Your task to perform on an android device: Do I have any events today? Image 0: 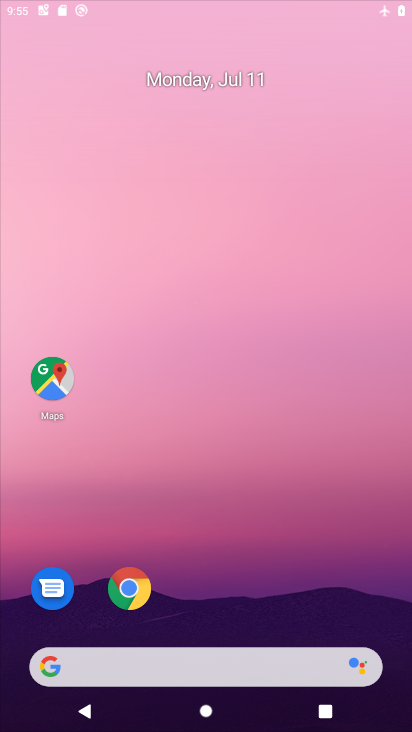
Step 0: drag from (215, 432) to (240, 193)
Your task to perform on an android device: Do I have any events today? Image 1: 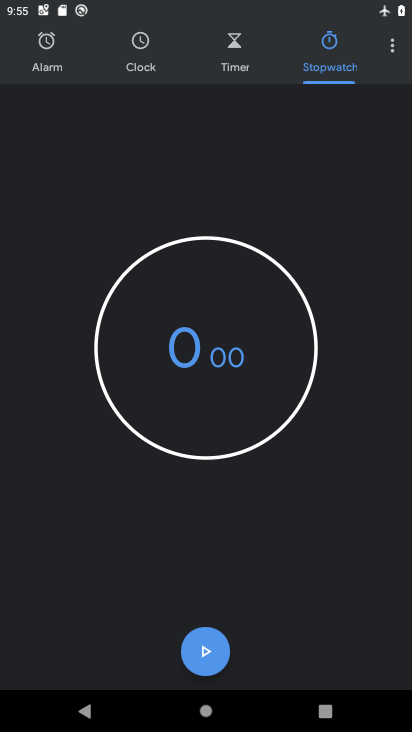
Step 1: press home button
Your task to perform on an android device: Do I have any events today? Image 2: 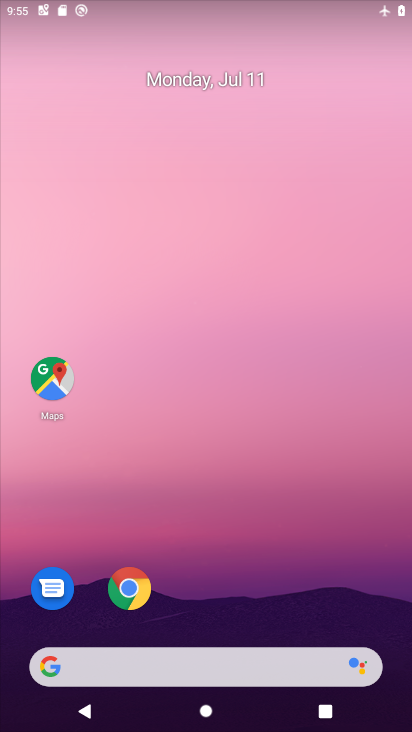
Step 2: drag from (280, 597) to (325, 270)
Your task to perform on an android device: Do I have any events today? Image 3: 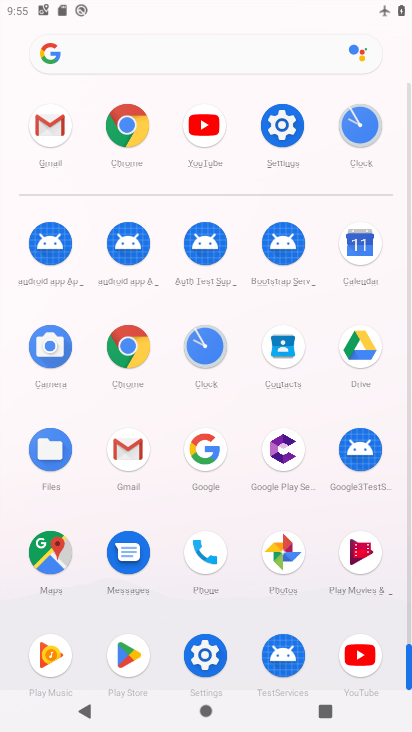
Step 3: click (347, 227)
Your task to perform on an android device: Do I have any events today? Image 4: 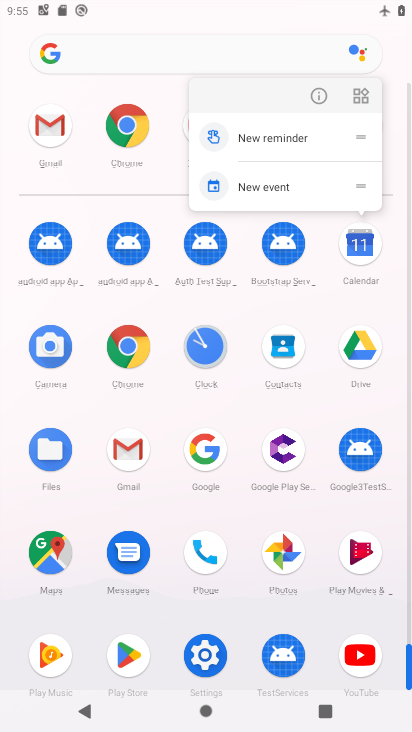
Step 4: click (357, 240)
Your task to perform on an android device: Do I have any events today? Image 5: 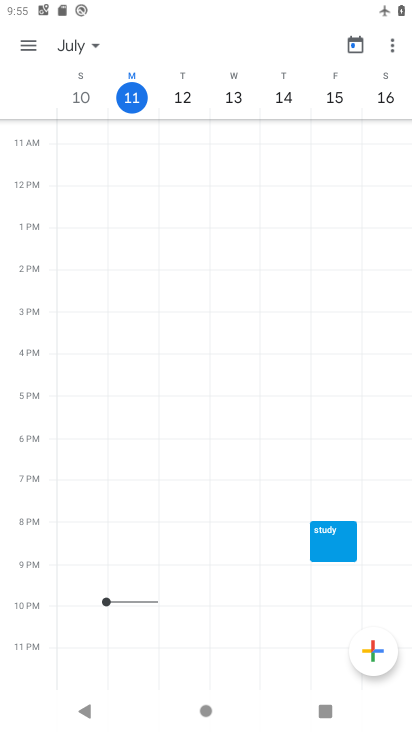
Step 5: click (191, 90)
Your task to perform on an android device: Do I have any events today? Image 6: 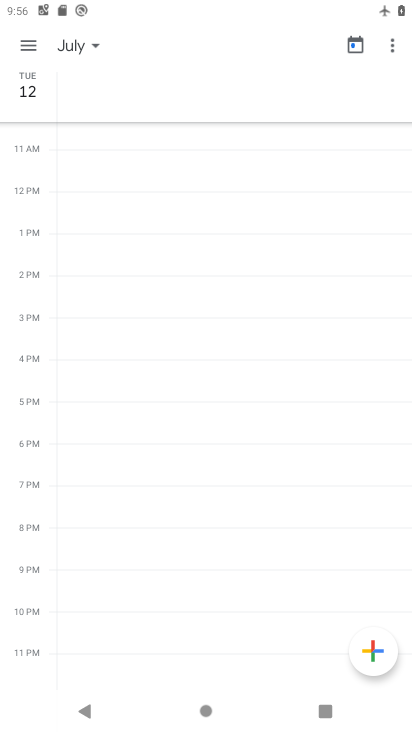
Step 6: task complete